Your task to perform on an android device: check data usage Image 0: 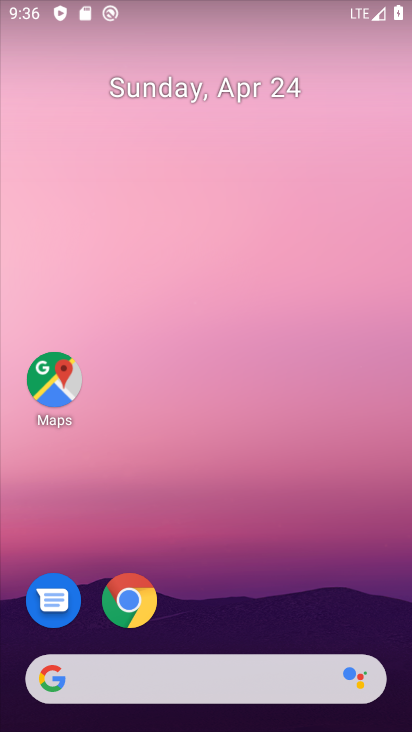
Step 0: drag from (200, 579) to (284, 0)
Your task to perform on an android device: check data usage Image 1: 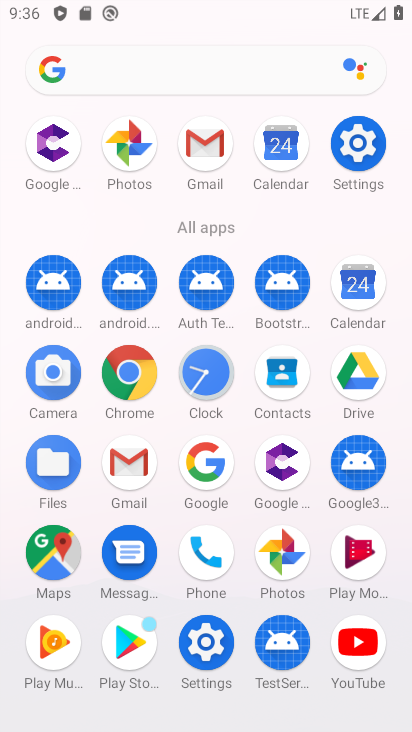
Step 1: click (356, 154)
Your task to perform on an android device: check data usage Image 2: 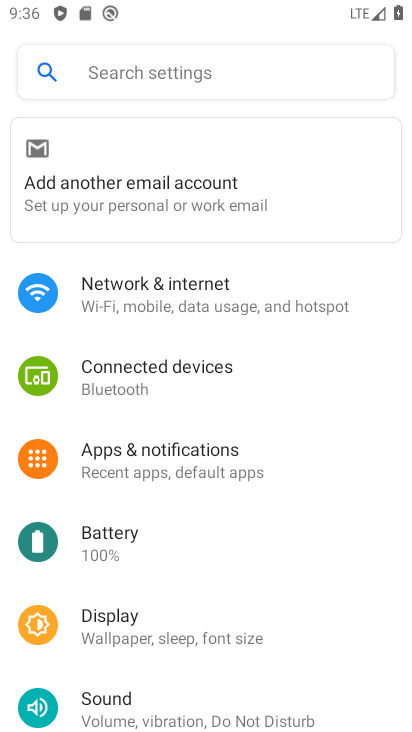
Step 2: click (179, 301)
Your task to perform on an android device: check data usage Image 3: 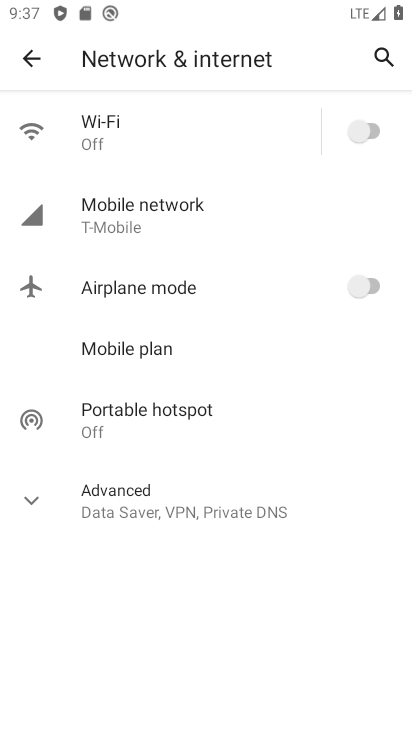
Step 3: click (153, 215)
Your task to perform on an android device: check data usage Image 4: 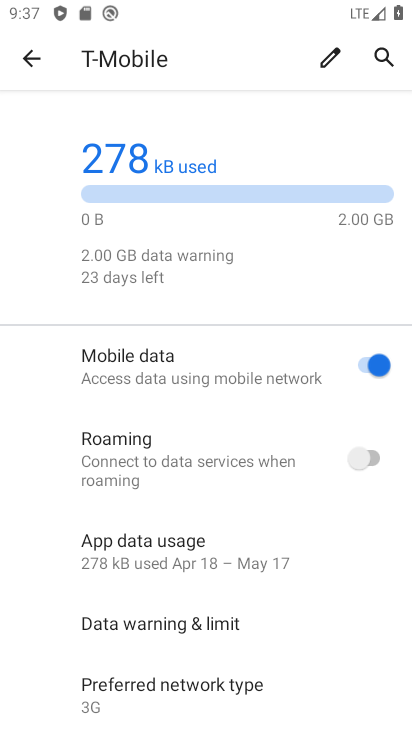
Step 4: click (175, 553)
Your task to perform on an android device: check data usage Image 5: 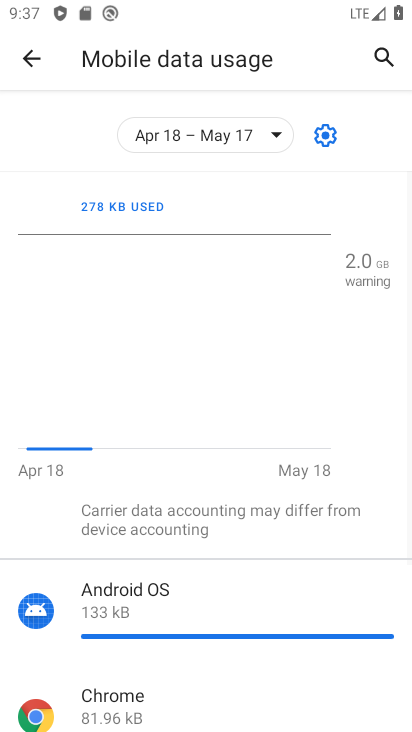
Step 5: task complete